Your task to perform on an android device: Clear the shopping cart on newegg. Search for "panasonic triple a" on newegg, select the first entry, add it to the cart, then select checkout. Image 0: 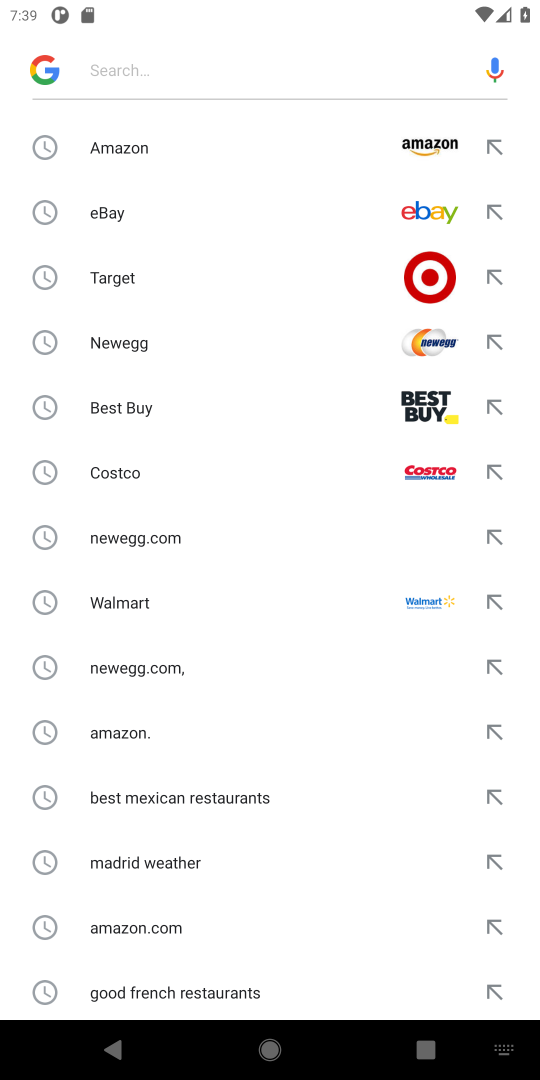
Step 0: click (115, 341)
Your task to perform on an android device: Clear the shopping cart on newegg. Search for "panasonic triple a" on newegg, select the first entry, add it to the cart, then select checkout. Image 1: 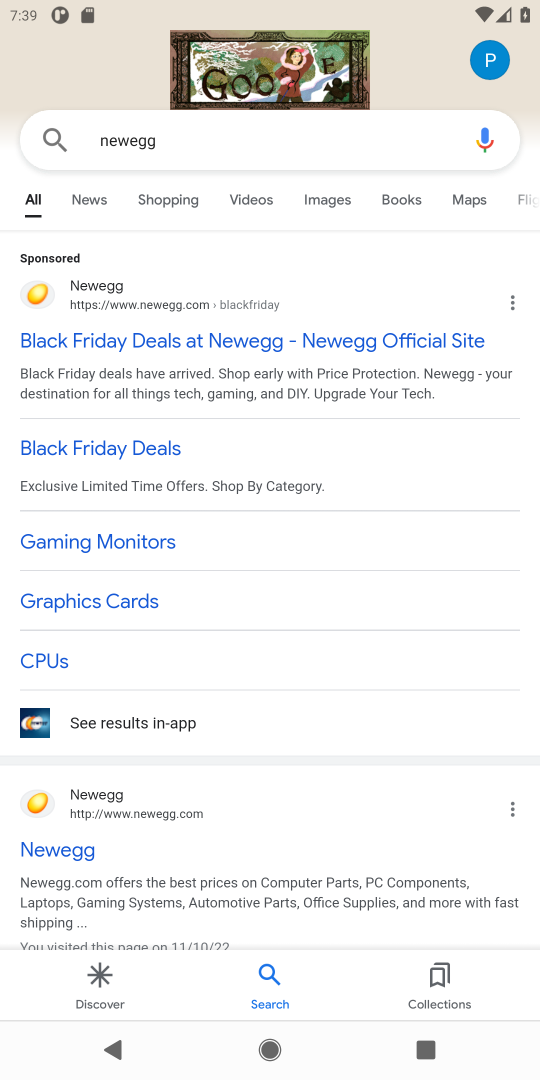
Step 1: click (53, 844)
Your task to perform on an android device: Clear the shopping cart on newegg. Search for "panasonic triple a" on newegg, select the first entry, add it to the cart, then select checkout. Image 2: 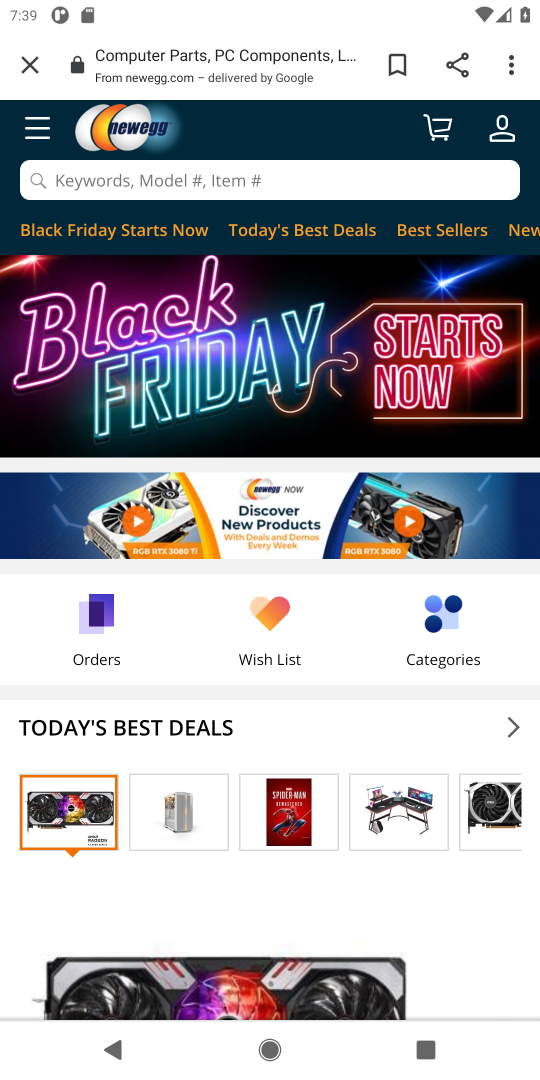
Step 2: click (440, 130)
Your task to perform on an android device: Clear the shopping cart on newegg. Search for "panasonic triple a" on newegg, select the first entry, add it to the cart, then select checkout. Image 3: 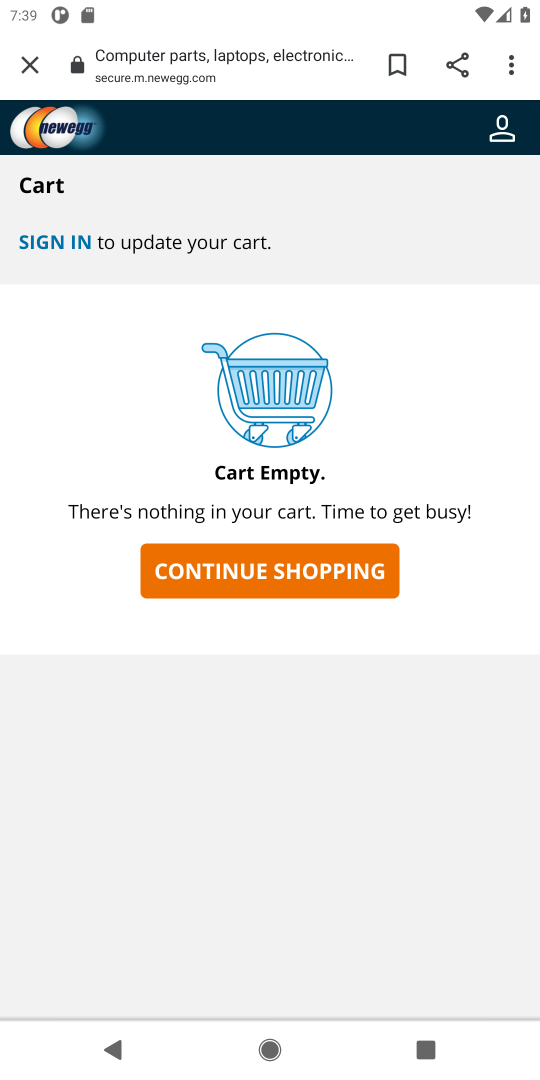
Step 3: click (286, 580)
Your task to perform on an android device: Clear the shopping cart on newegg. Search for "panasonic triple a" on newegg, select the first entry, add it to the cart, then select checkout. Image 4: 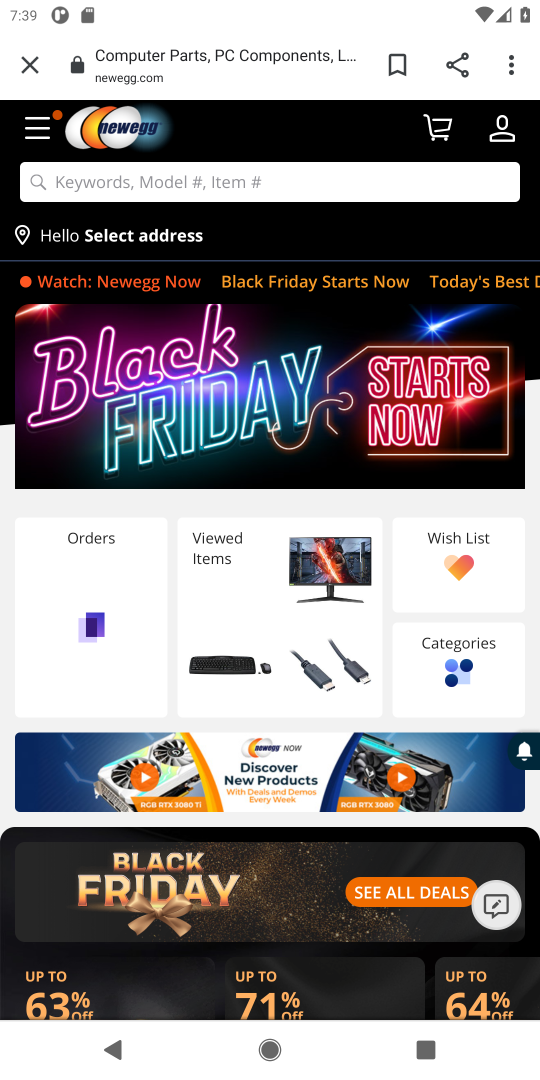
Step 4: click (120, 185)
Your task to perform on an android device: Clear the shopping cart on newegg. Search for "panasonic triple a" on newegg, select the first entry, add it to the cart, then select checkout. Image 5: 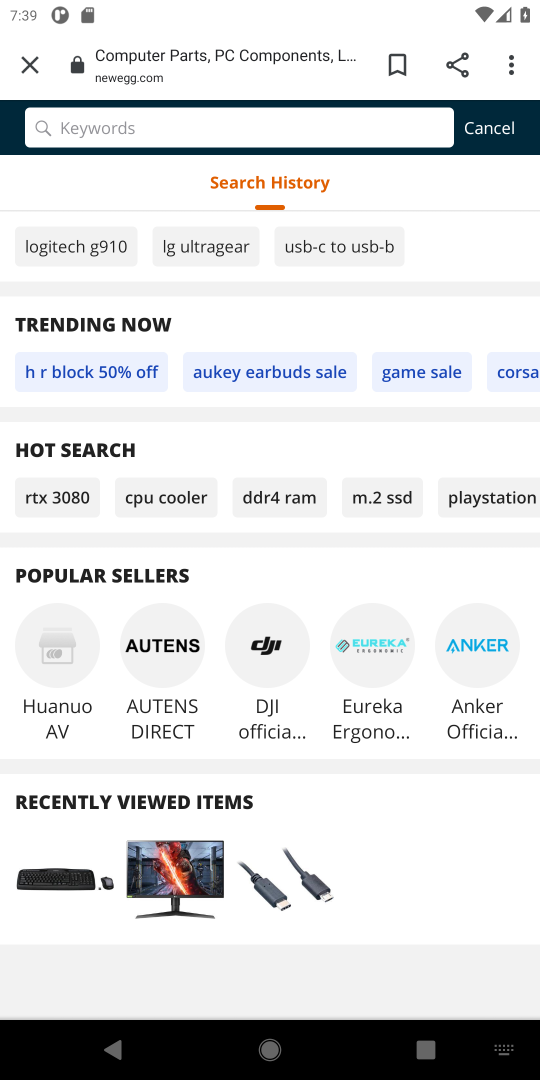
Step 5: type "panasonic triple a"
Your task to perform on an android device: Clear the shopping cart on newegg. Search for "panasonic triple a" on newegg, select the first entry, add it to the cart, then select checkout. Image 6: 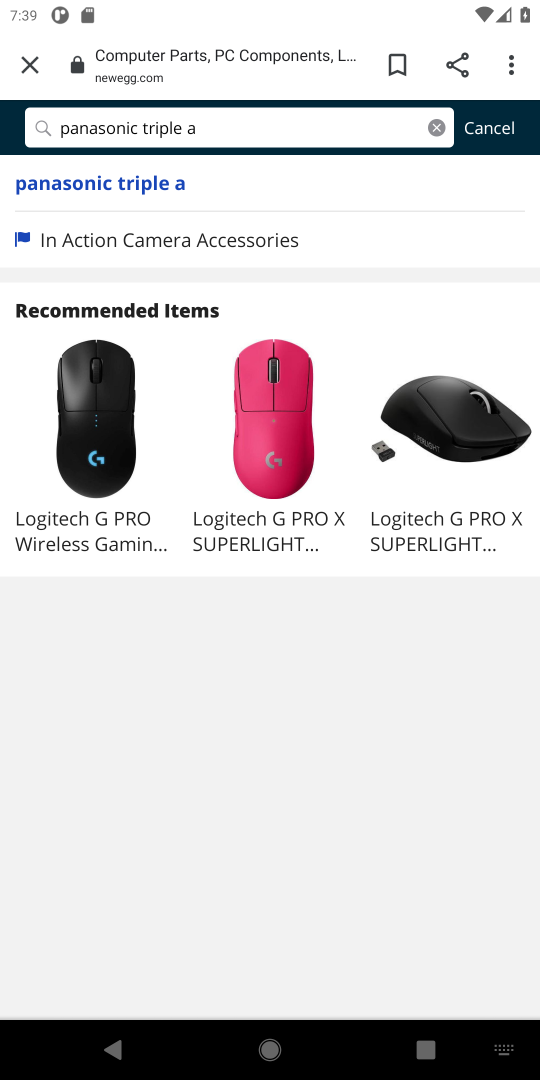
Step 6: click (141, 188)
Your task to perform on an android device: Clear the shopping cart on newegg. Search for "panasonic triple a" on newegg, select the first entry, add it to the cart, then select checkout. Image 7: 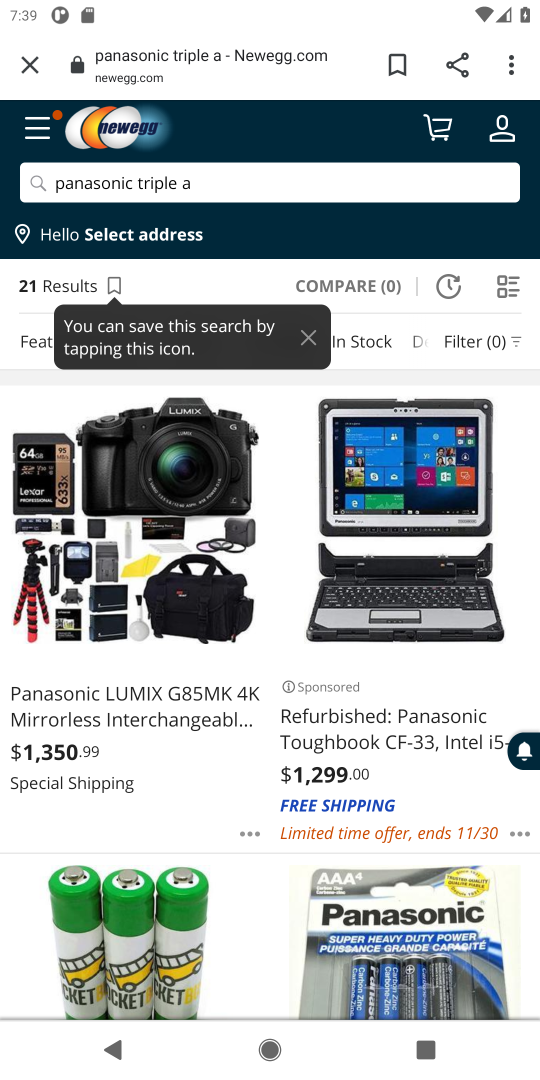
Step 7: task complete